Your task to perform on an android device: Open network settings Image 0: 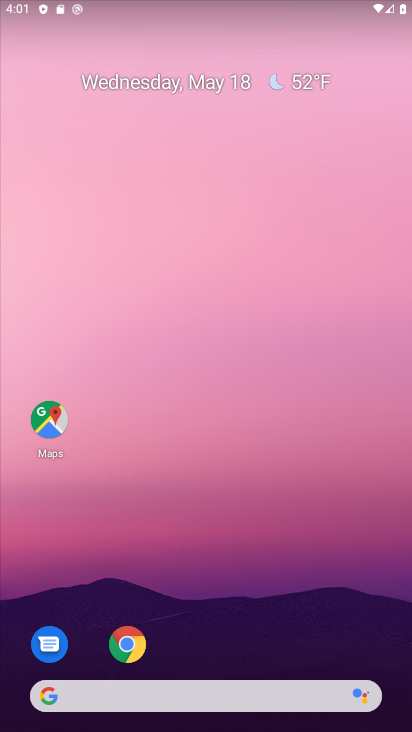
Step 0: drag from (247, 659) to (190, 349)
Your task to perform on an android device: Open network settings Image 1: 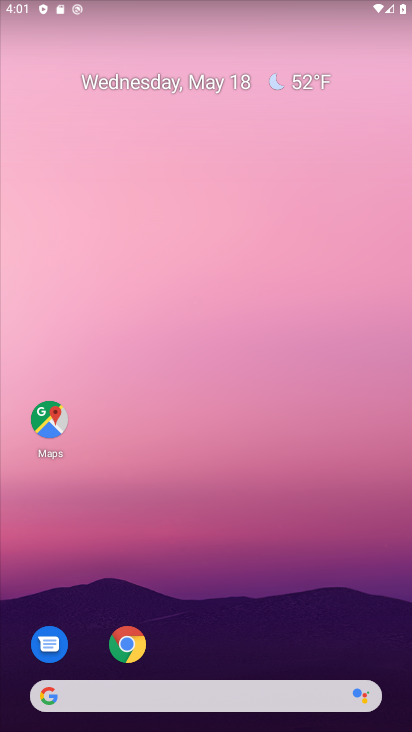
Step 1: drag from (216, 663) to (157, 113)
Your task to perform on an android device: Open network settings Image 2: 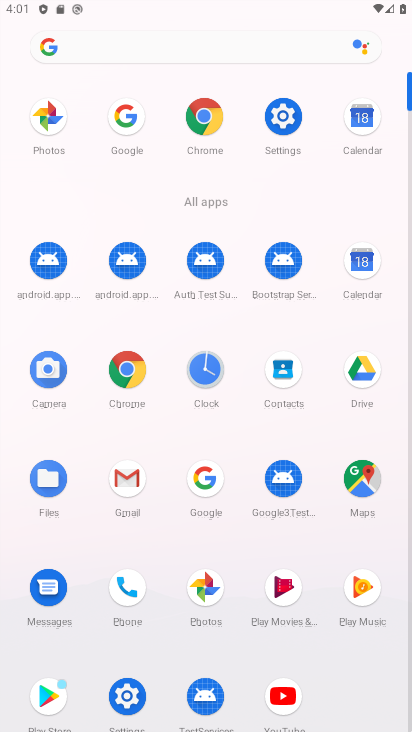
Step 2: click (275, 100)
Your task to perform on an android device: Open network settings Image 3: 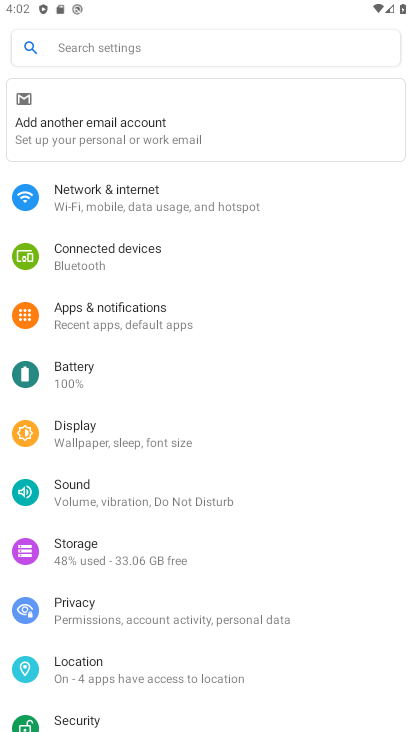
Step 3: click (30, 191)
Your task to perform on an android device: Open network settings Image 4: 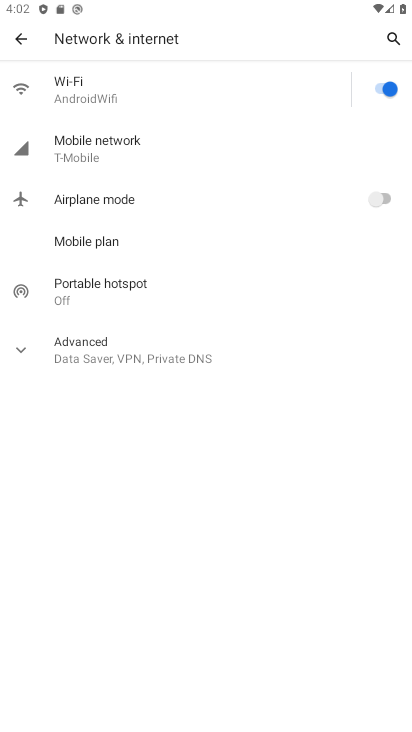
Step 4: click (131, 149)
Your task to perform on an android device: Open network settings Image 5: 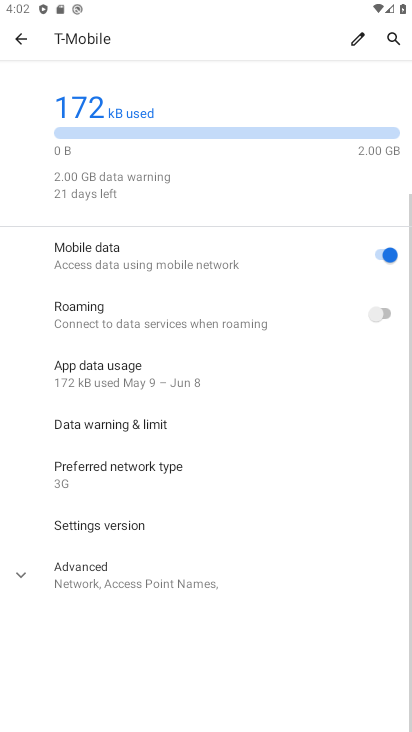
Step 5: task complete